Your task to perform on an android device: Find coffee shops on Maps Image 0: 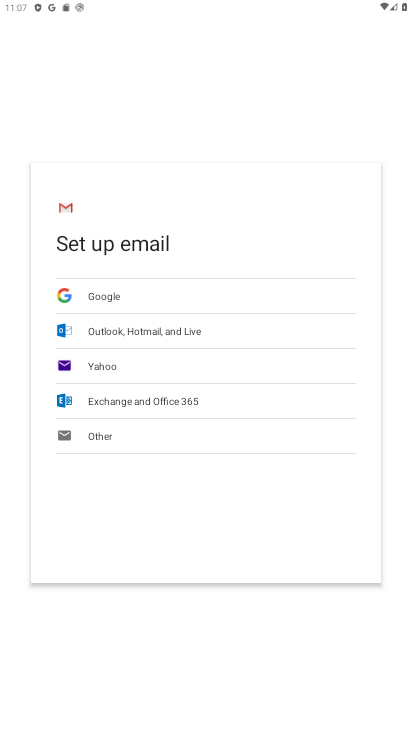
Step 0: press home button
Your task to perform on an android device: Find coffee shops on Maps Image 1: 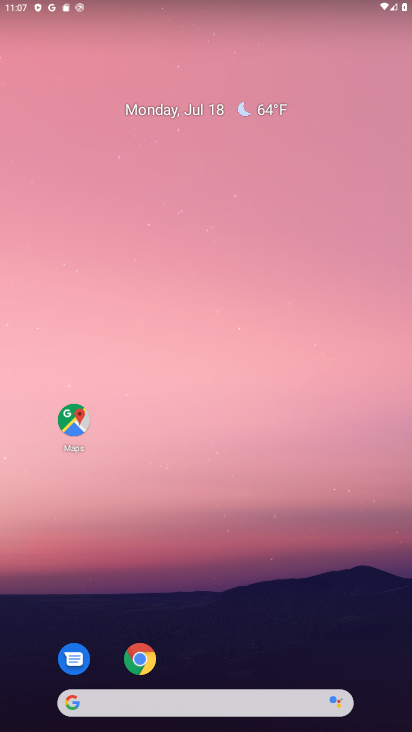
Step 1: drag from (247, 666) to (178, 262)
Your task to perform on an android device: Find coffee shops on Maps Image 2: 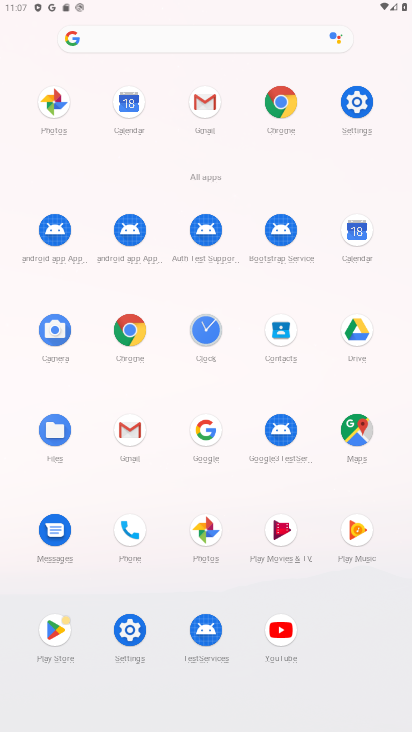
Step 2: click (334, 435)
Your task to perform on an android device: Find coffee shops on Maps Image 3: 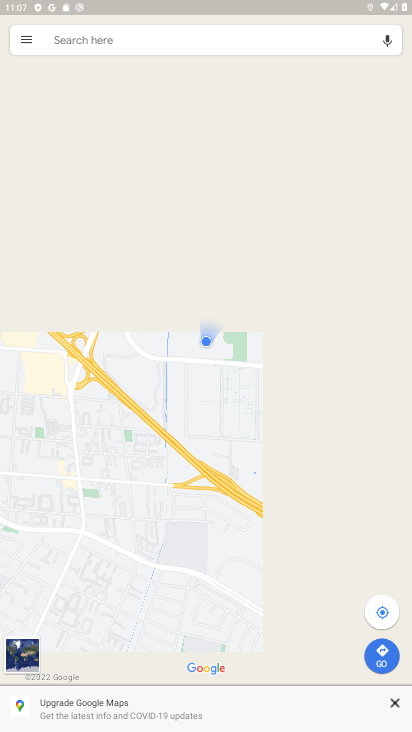
Step 3: click (116, 2)
Your task to perform on an android device: Find coffee shops on Maps Image 4: 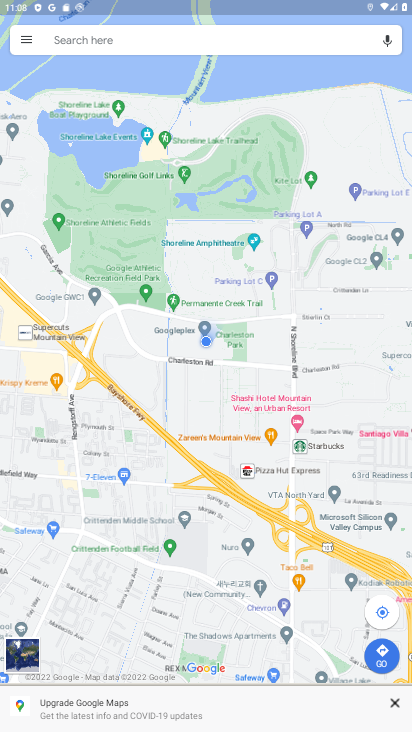
Step 4: click (273, 44)
Your task to perform on an android device: Find coffee shops on Maps Image 5: 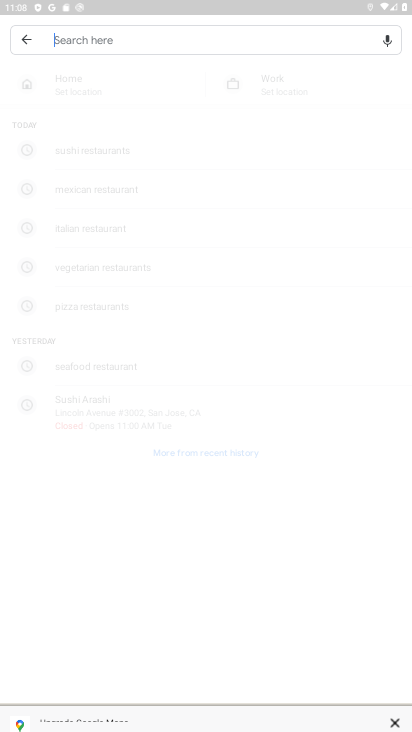
Step 5: click (180, 45)
Your task to perform on an android device: Find coffee shops on Maps Image 6: 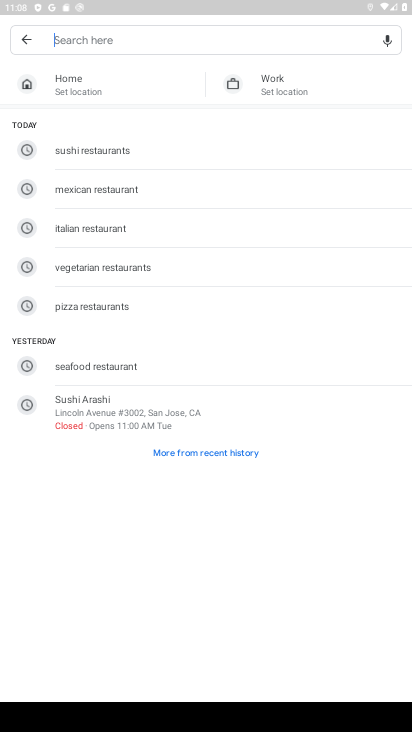
Step 6: type "coffee shops"
Your task to perform on an android device: Find coffee shops on Maps Image 7: 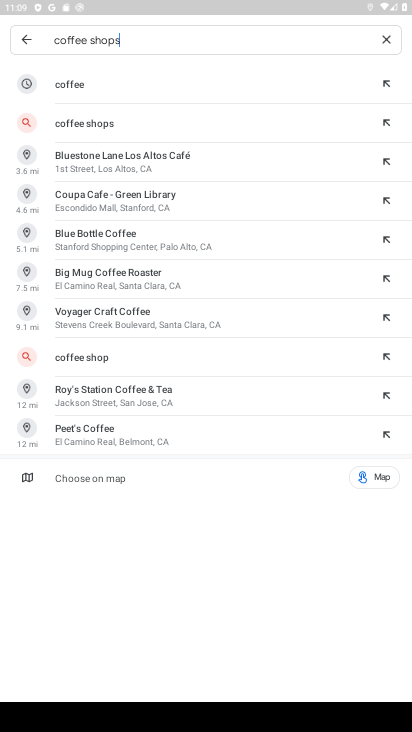
Step 7: click (68, 125)
Your task to perform on an android device: Find coffee shops on Maps Image 8: 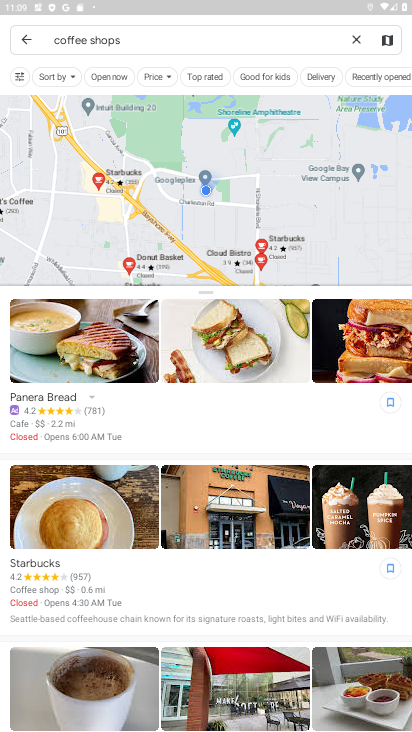
Step 8: task complete